Your task to perform on an android device: Search for acer nitro on costco.com, select the first entry, add it to the cart, then select checkout. Image 0: 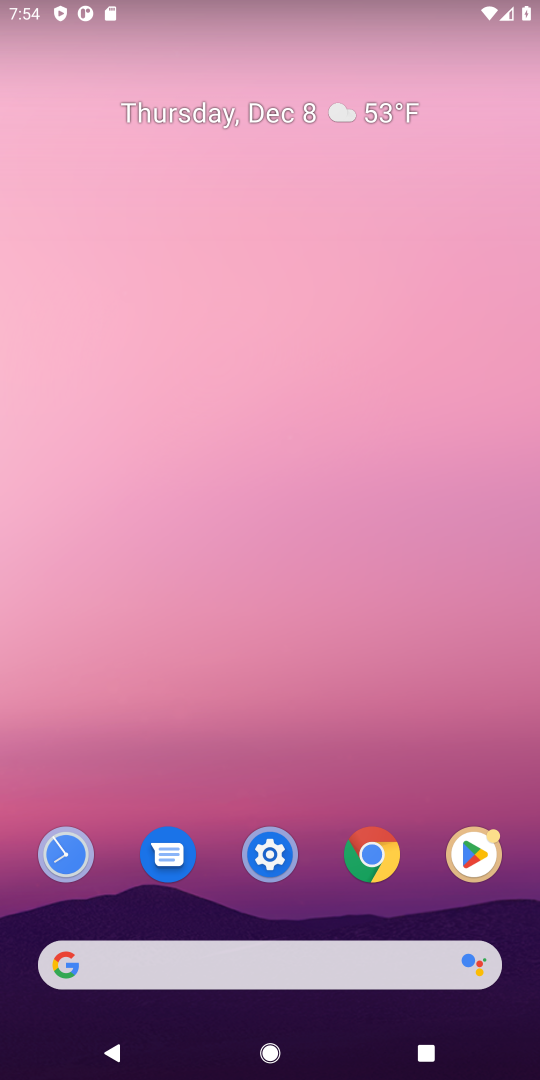
Step 0: press home button
Your task to perform on an android device: Search for acer nitro on costco.com, select the first entry, add it to the cart, then select checkout. Image 1: 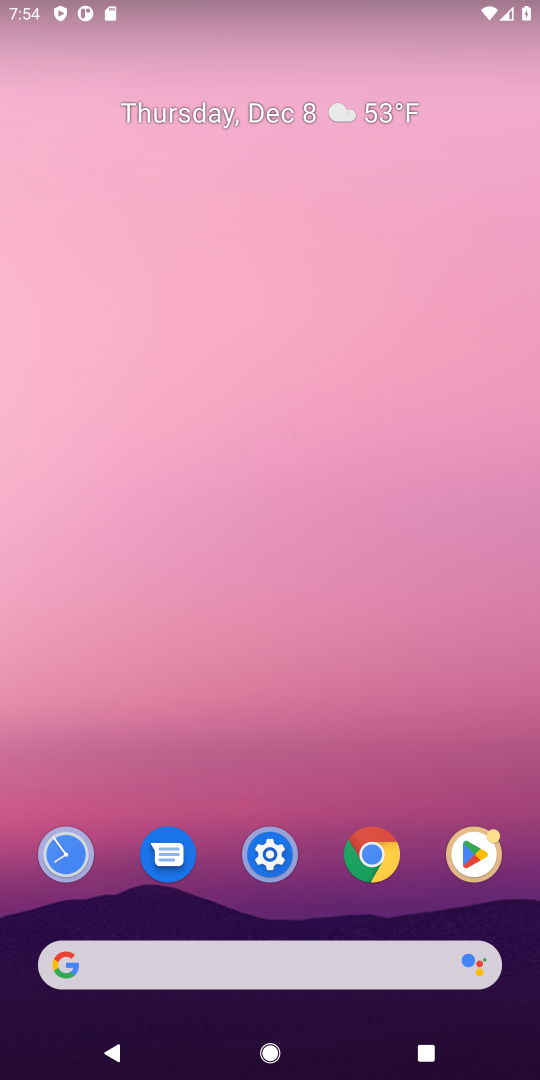
Step 1: click (83, 954)
Your task to perform on an android device: Search for acer nitro on costco.com, select the first entry, add it to the cart, then select checkout. Image 2: 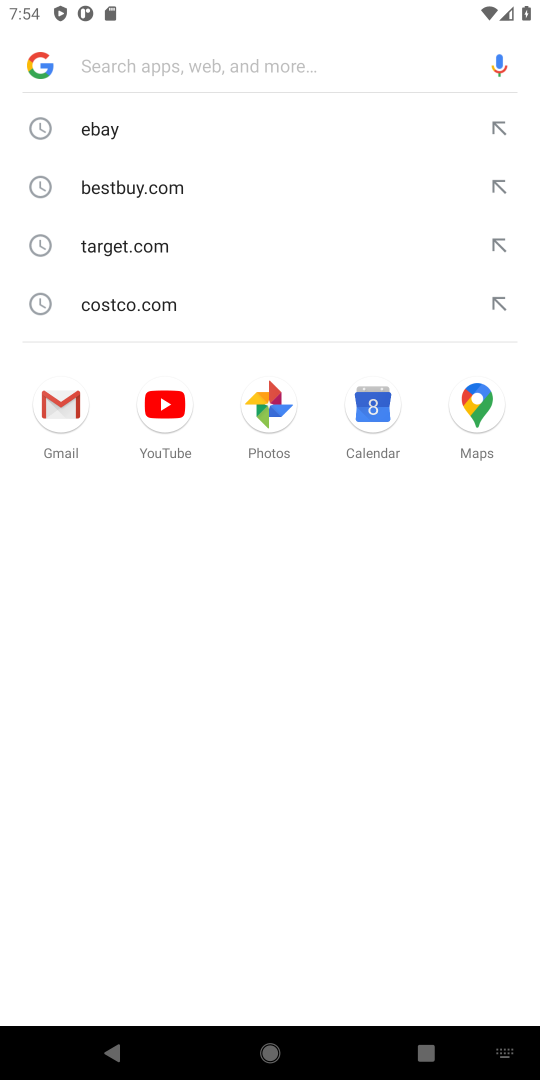
Step 2: type "costco.com"
Your task to perform on an android device: Search for acer nitro on costco.com, select the first entry, add it to the cart, then select checkout. Image 3: 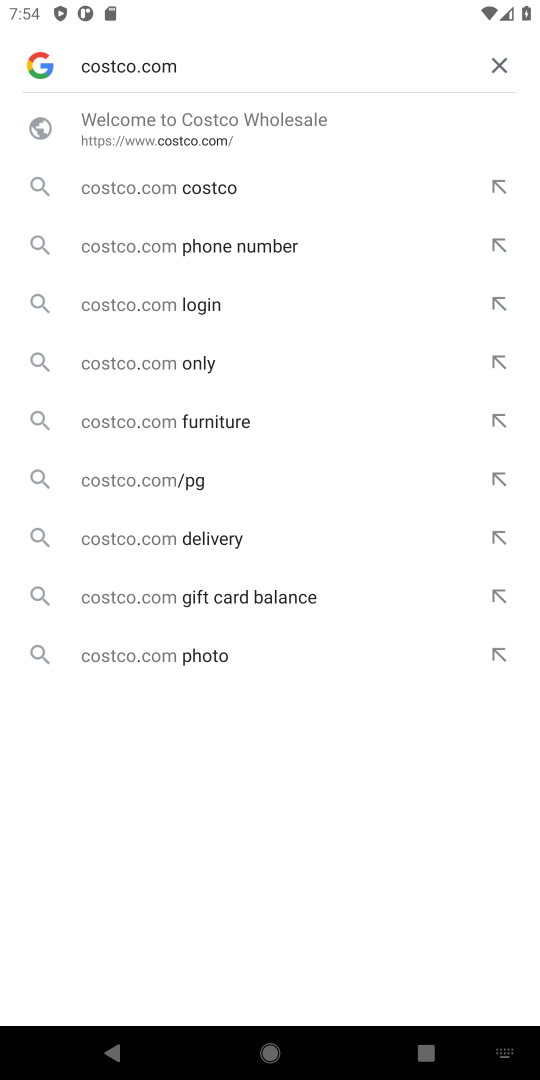
Step 3: press enter
Your task to perform on an android device: Search for acer nitro on costco.com, select the first entry, add it to the cart, then select checkout. Image 4: 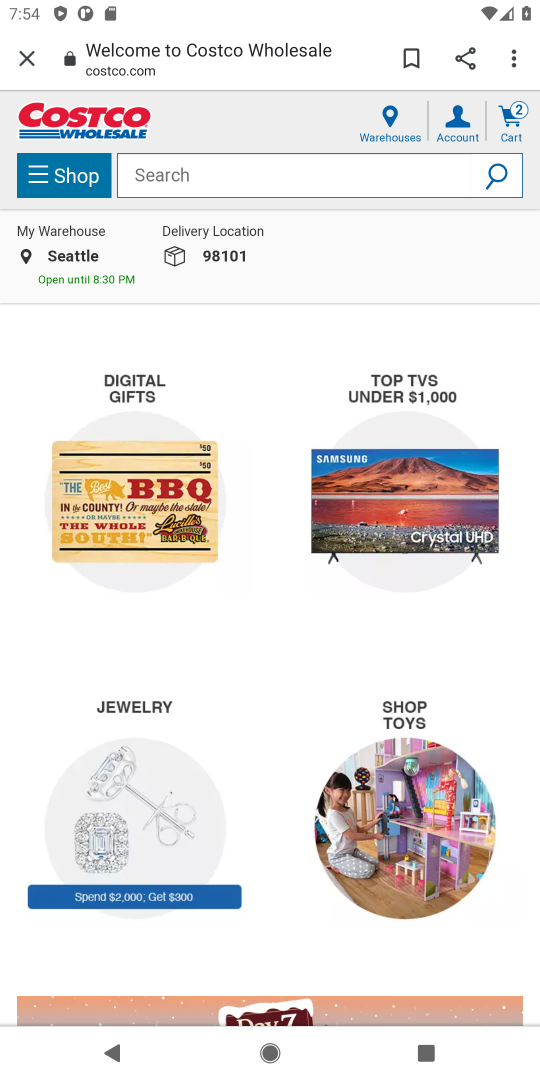
Step 4: click (188, 173)
Your task to perform on an android device: Search for acer nitro on costco.com, select the first entry, add it to the cart, then select checkout. Image 5: 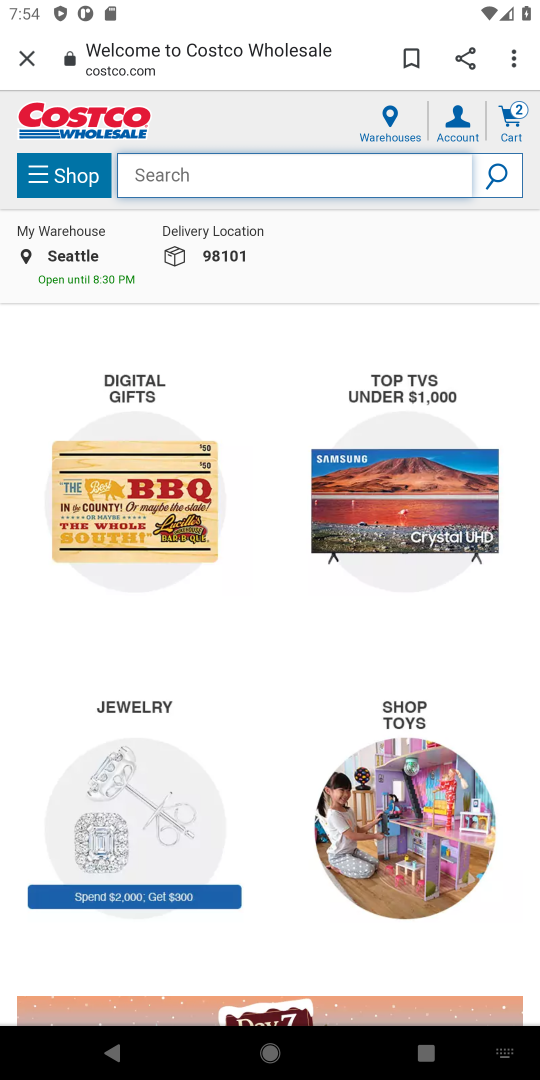
Step 5: type "acer nitro"
Your task to perform on an android device: Search for acer nitro on costco.com, select the first entry, add it to the cart, then select checkout. Image 6: 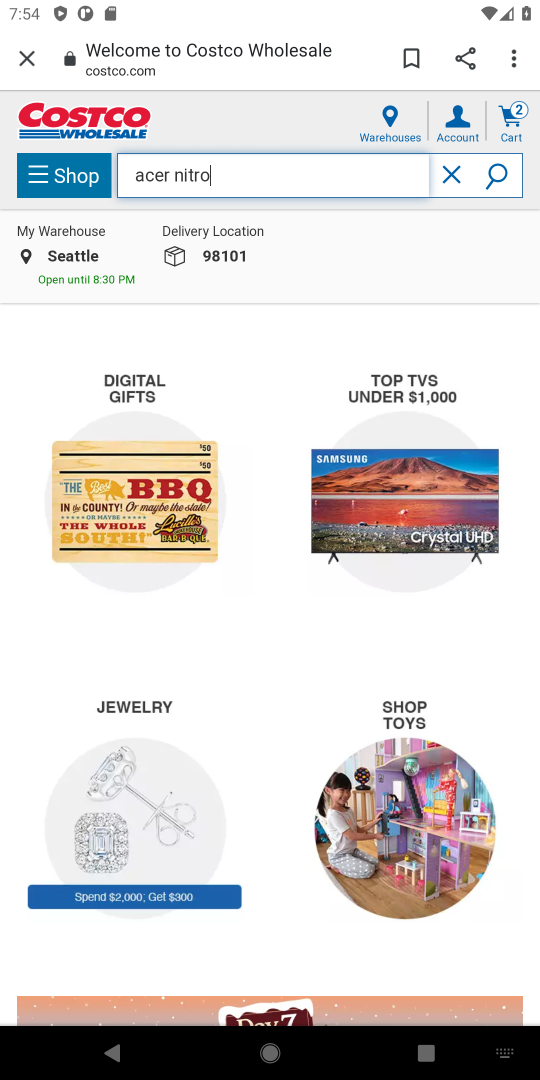
Step 6: press enter
Your task to perform on an android device: Search for acer nitro on costco.com, select the first entry, add it to the cart, then select checkout. Image 7: 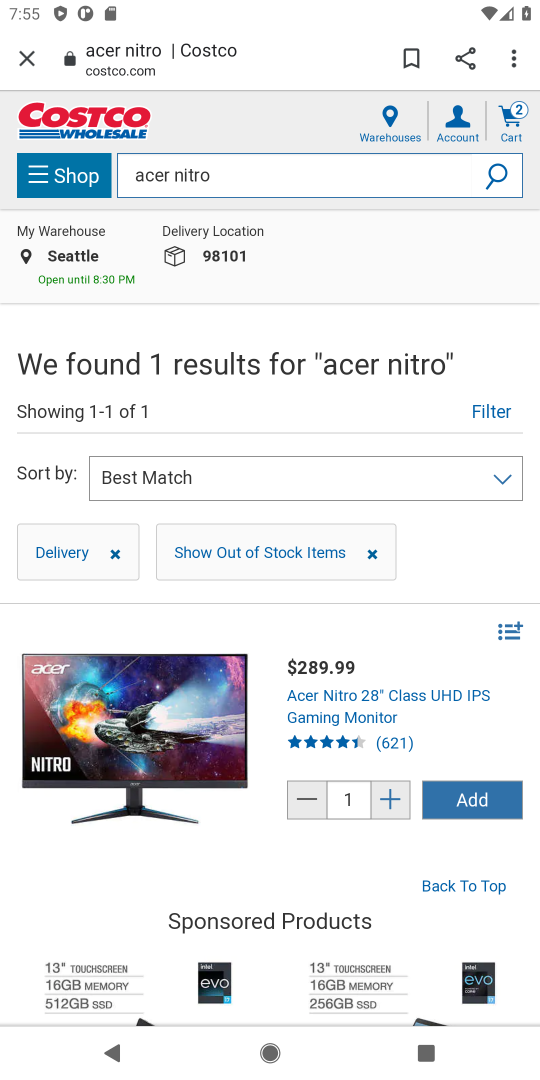
Step 7: click (477, 800)
Your task to perform on an android device: Search for acer nitro on costco.com, select the first entry, add it to the cart, then select checkout. Image 8: 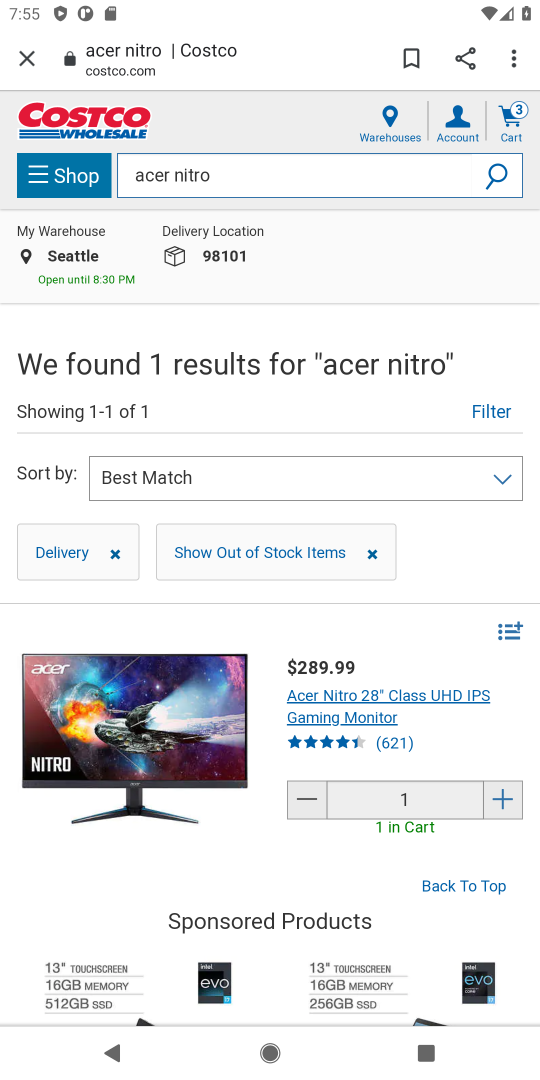
Step 8: click (506, 110)
Your task to perform on an android device: Search for acer nitro on costco.com, select the first entry, add it to the cart, then select checkout. Image 9: 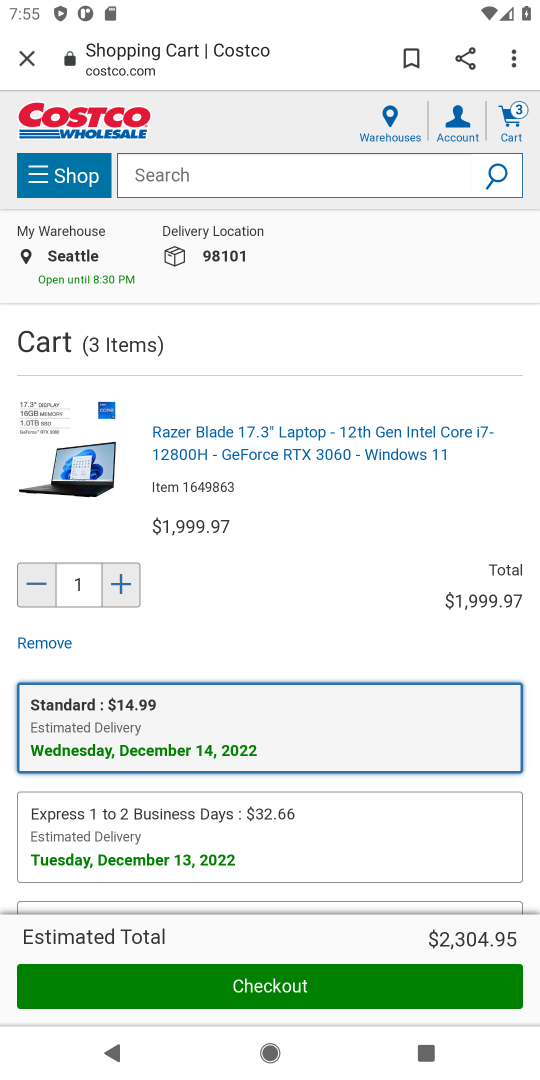
Step 9: click (256, 982)
Your task to perform on an android device: Search for acer nitro on costco.com, select the first entry, add it to the cart, then select checkout. Image 10: 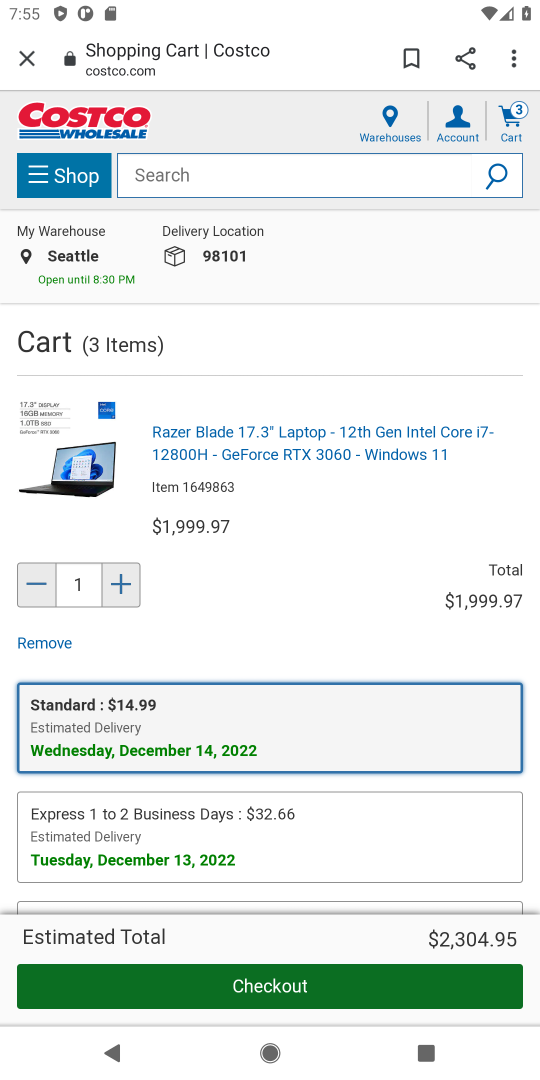
Step 10: click (281, 984)
Your task to perform on an android device: Search for acer nitro on costco.com, select the first entry, add it to the cart, then select checkout. Image 11: 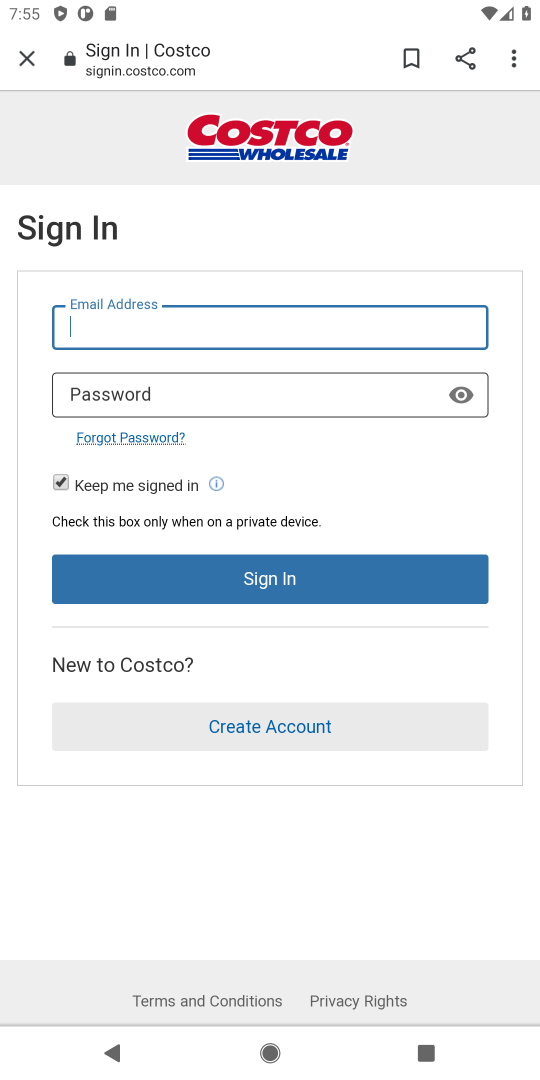
Step 11: task complete